Your task to perform on an android device: turn off javascript in the chrome app Image 0: 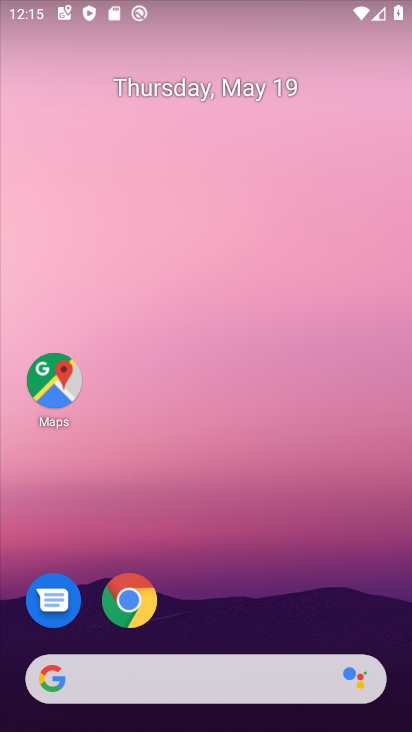
Step 0: click (126, 589)
Your task to perform on an android device: turn off javascript in the chrome app Image 1: 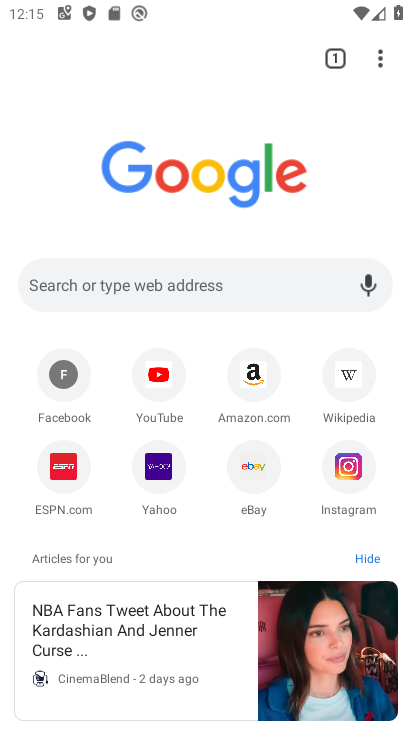
Step 1: click (383, 64)
Your task to perform on an android device: turn off javascript in the chrome app Image 2: 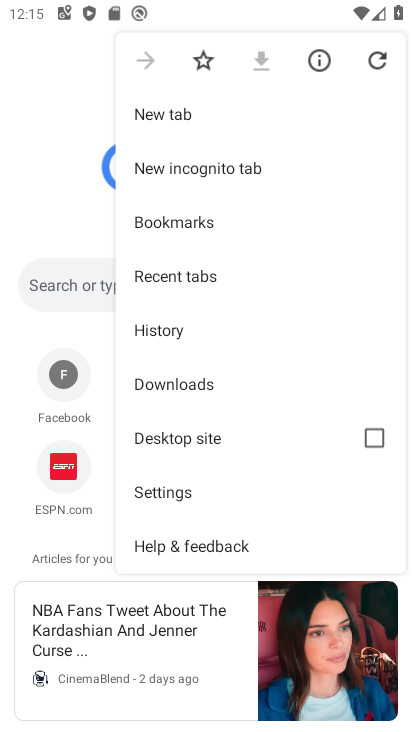
Step 2: click (223, 492)
Your task to perform on an android device: turn off javascript in the chrome app Image 3: 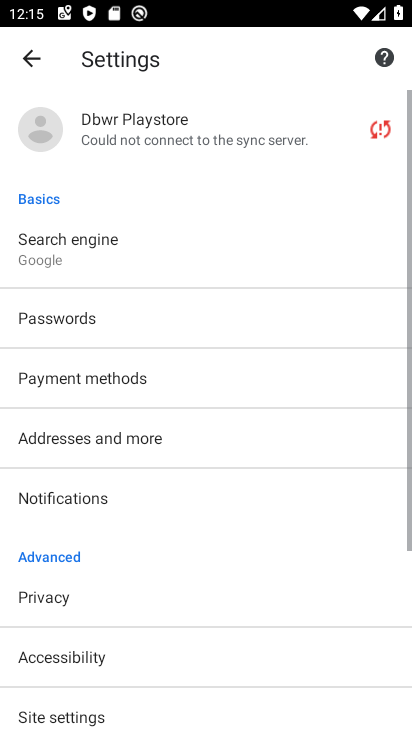
Step 3: drag from (208, 673) to (195, 308)
Your task to perform on an android device: turn off javascript in the chrome app Image 4: 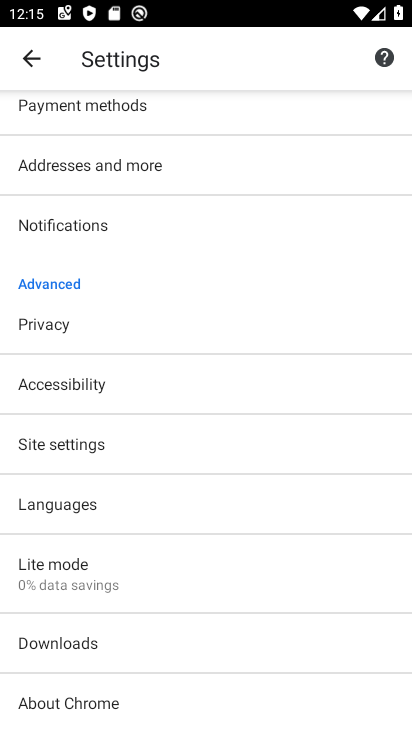
Step 4: click (129, 444)
Your task to perform on an android device: turn off javascript in the chrome app Image 5: 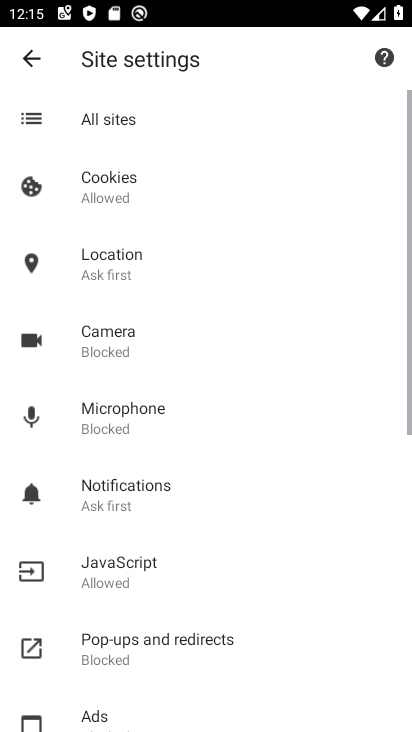
Step 5: click (190, 581)
Your task to perform on an android device: turn off javascript in the chrome app Image 6: 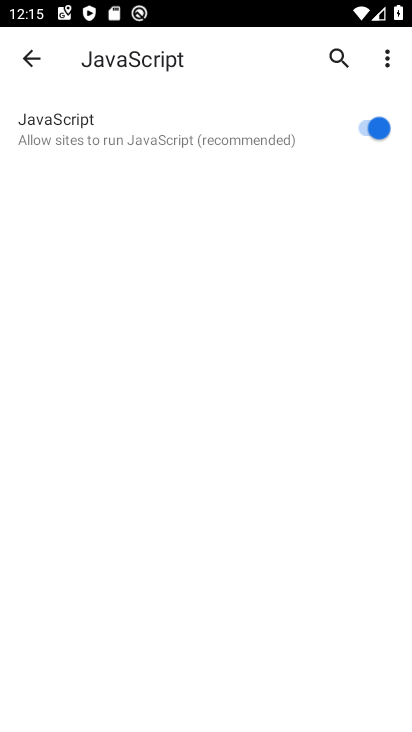
Step 6: click (381, 124)
Your task to perform on an android device: turn off javascript in the chrome app Image 7: 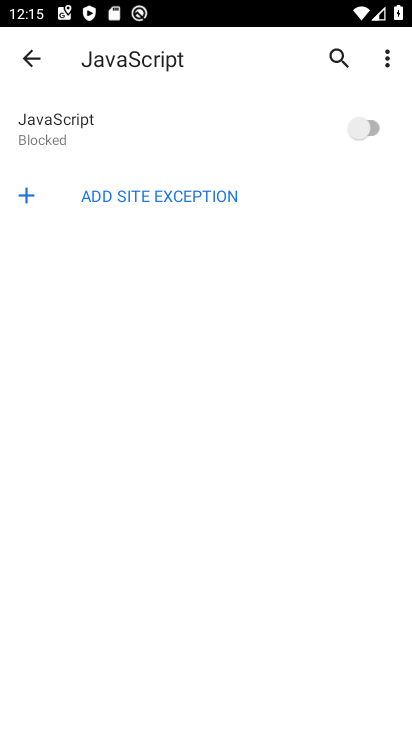
Step 7: task complete